Your task to perform on an android device: Show me popular games on the Play Store Image 0: 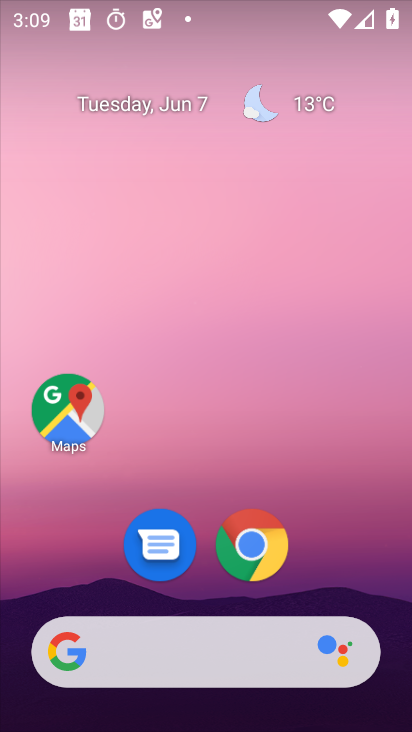
Step 0: drag from (297, 272) to (168, 0)
Your task to perform on an android device: Show me popular games on the Play Store Image 1: 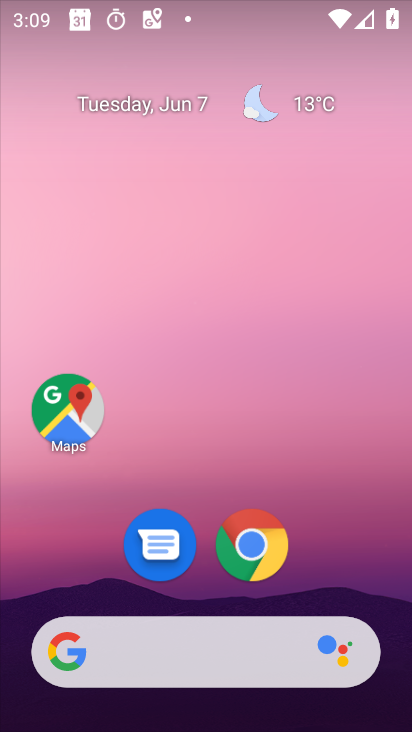
Step 1: drag from (353, 572) to (255, 4)
Your task to perform on an android device: Show me popular games on the Play Store Image 2: 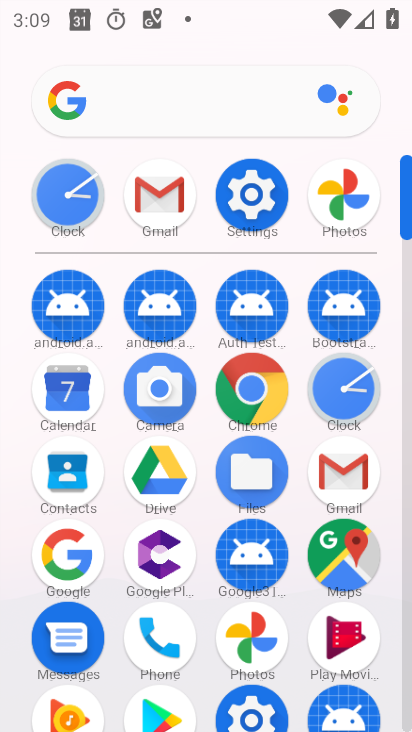
Step 2: click (167, 701)
Your task to perform on an android device: Show me popular games on the Play Store Image 3: 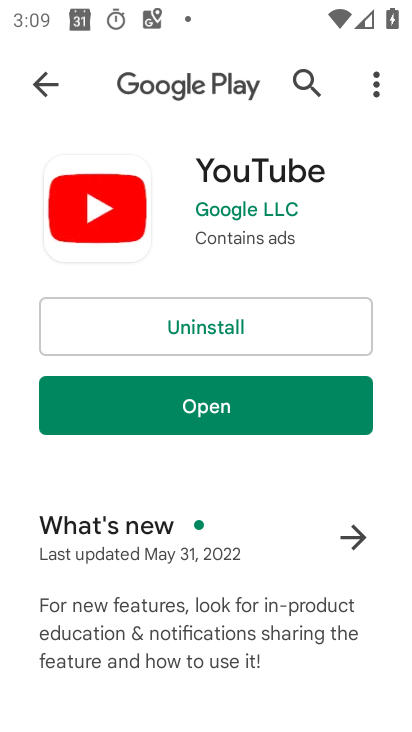
Step 3: click (36, 74)
Your task to perform on an android device: Show me popular games on the Play Store Image 4: 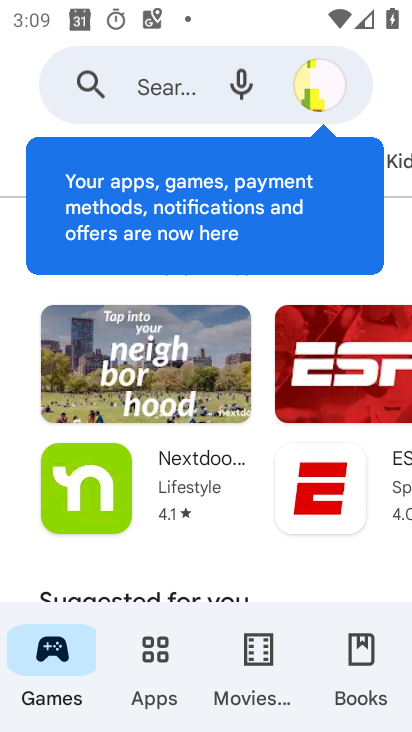
Step 4: click (16, 89)
Your task to perform on an android device: Show me popular games on the Play Store Image 5: 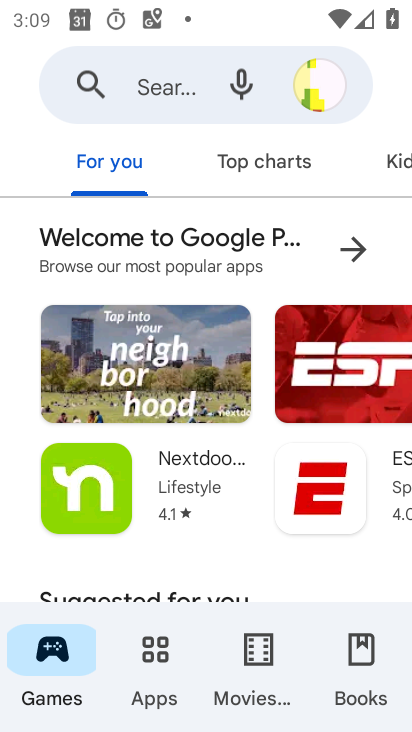
Step 5: click (248, 161)
Your task to perform on an android device: Show me popular games on the Play Store Image 6: 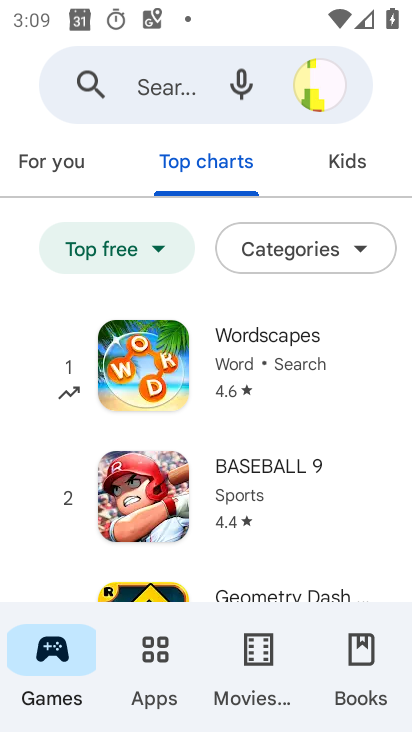
Step 6: task complete